Your task to perform on an android device: Go to Wikipedia Image 0: 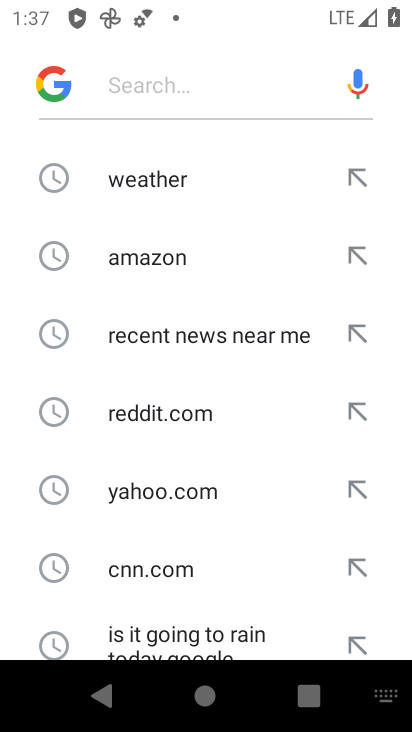
Step 0: press home button
Your task to perform on an android device: Go to Wikipedia Image 1: 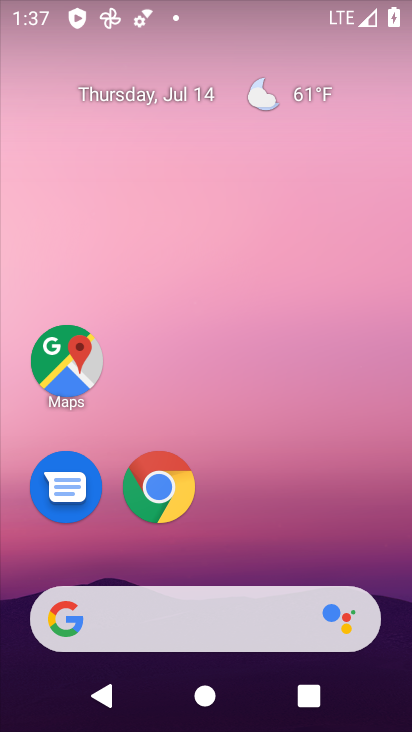
Step 1: drag from (332, 520) to (331, 80)
Your task to perform on an android device: Go to Wikipedia Image 2: 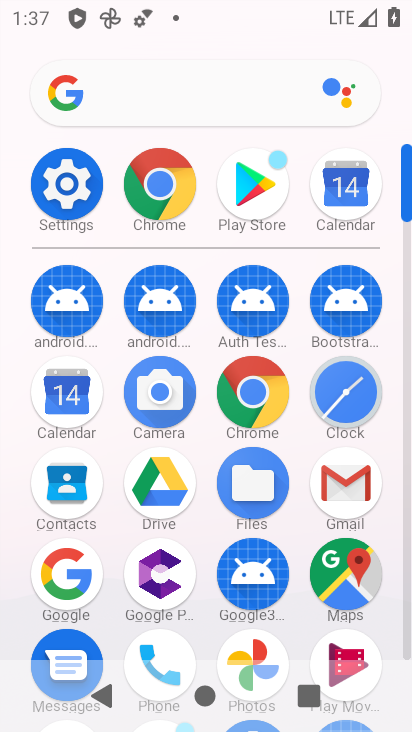
Step 2: click (257, 399)
Your task to perform on an android device: Go to Wikipedia Image 3: 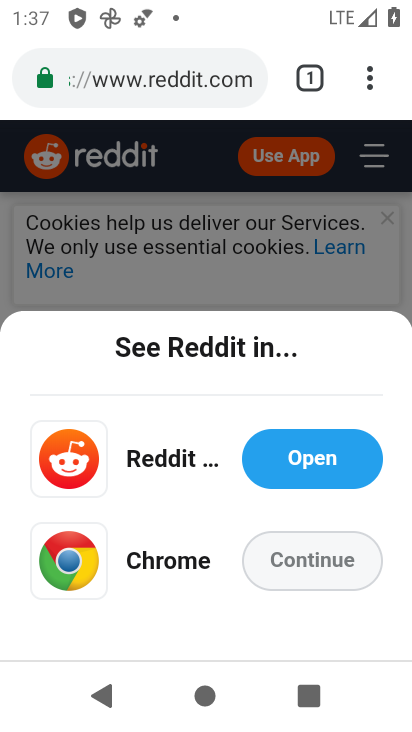
Step 3: click (214, 92)
Your task to perform on an android device: Go to Wikipedia Image 4: 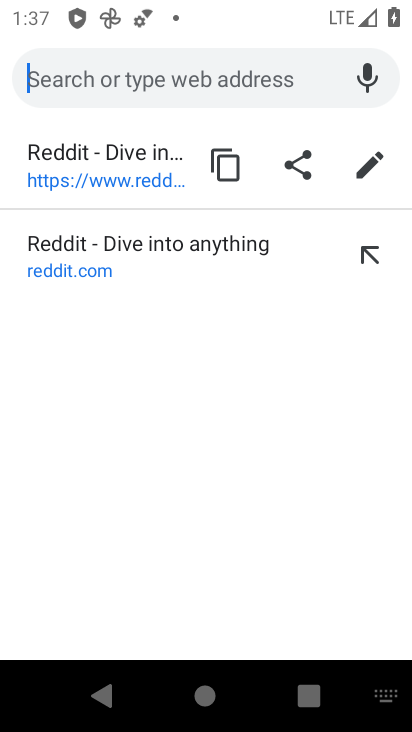
Step 4: type "wikipedia"
Your task to perform on an android device: Go to Wikipedia Image 5: 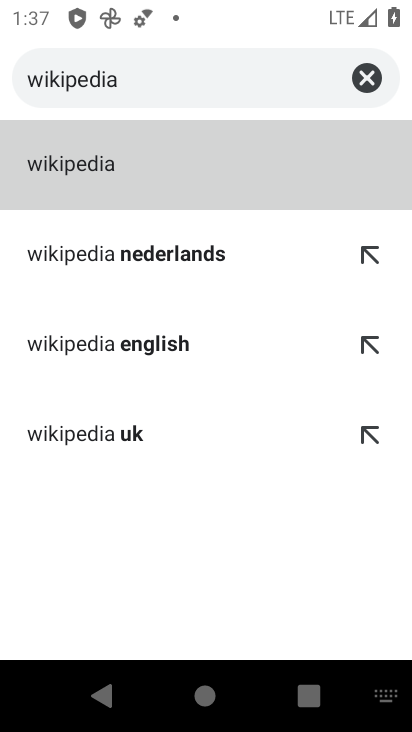
Step 5: click (219, 183)
Your task to perform on an android device: Go to Wikipedia Image 6: 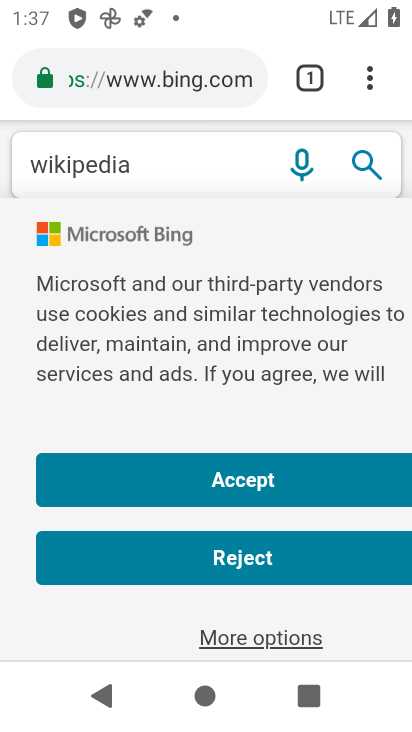
Step 6: task complete